Your task to perform on an android device: Open the phone app and click the voicemail tab. Image 0: 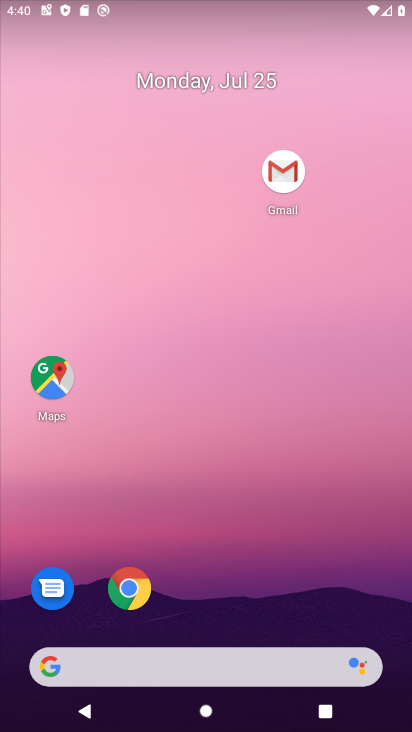
Step 0: drag from (310, 550) to (225, 93)
Your task to perform on an android device: Open the phone app and click the voicemail tab. Image 1: 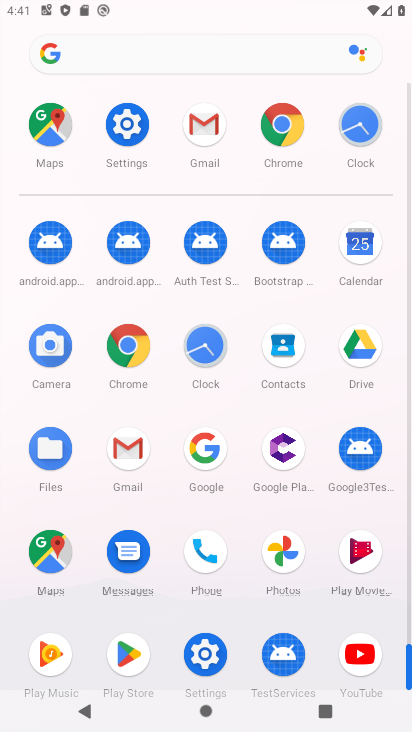
Step 1: click (204, 549)
Your task to perform on an android device: Open the phone app and click the voicemail tab. Image 2: 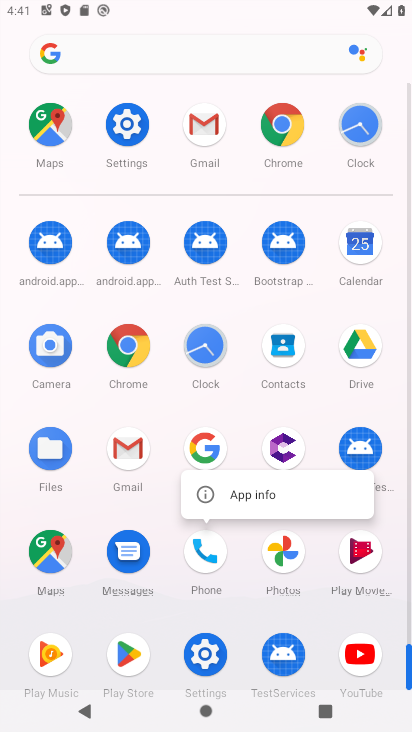
Step 2: click (205, 560)
Your task to perform on an android device: Open the phone app and click the voicemail tab. Image 3: 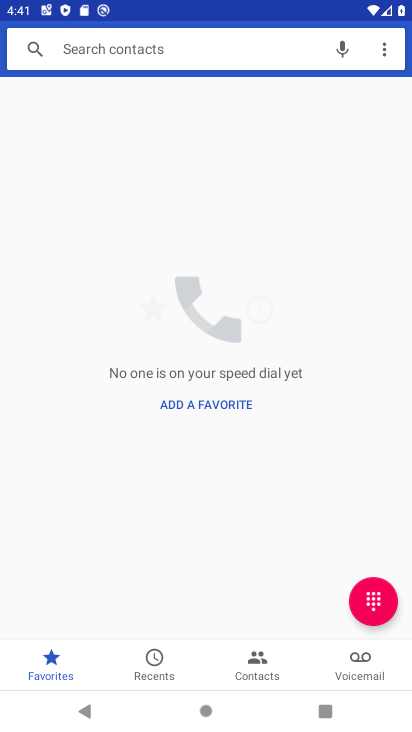
Step 3: click (372, 681)
Your task to perform on an android device: Open the phone app and click the voicemail tab. Image 4: 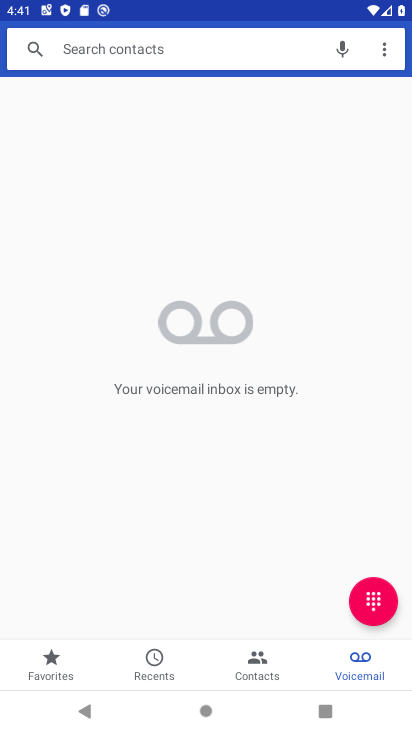
Step 4: task complete